Your task to perform on an android device: turn notification dots on Image 0: 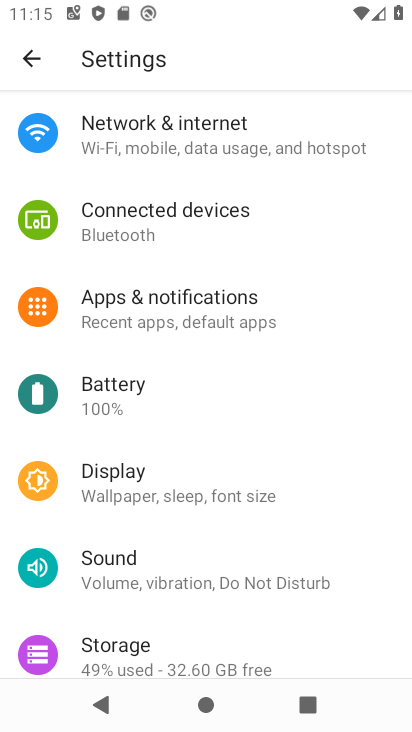
Step 0: click (164, 301)
Your task to perform on an android device: turn notification dots on Image 1: 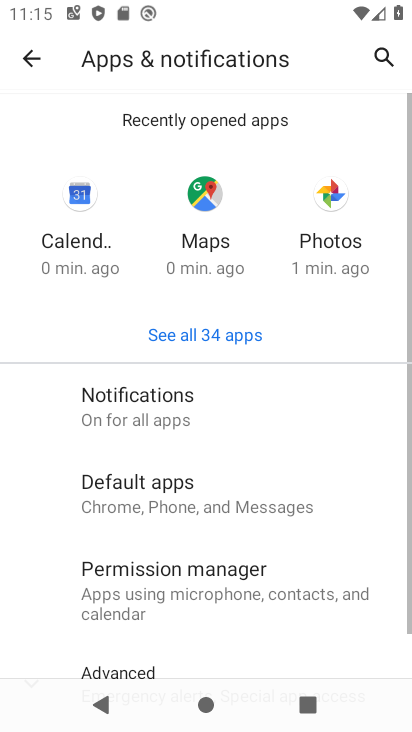
Step 1: click (164, 409)
Your task to perform on an android device: turn notification dots on Image 2: 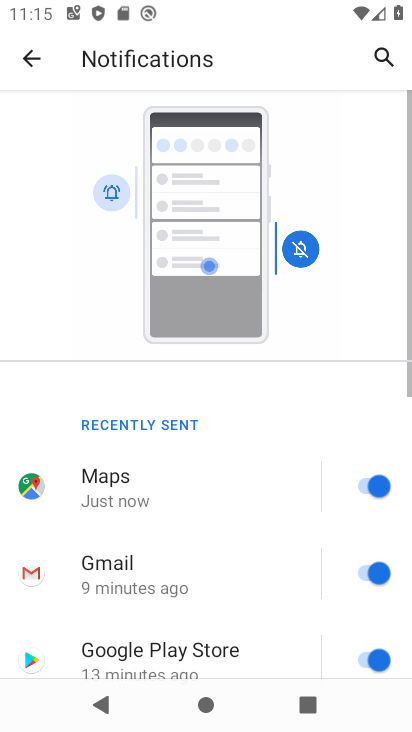
Step 2: drag from (169, 545) to (214, 66)
Your task to perform on an android device: turn notification dots on Image 3: 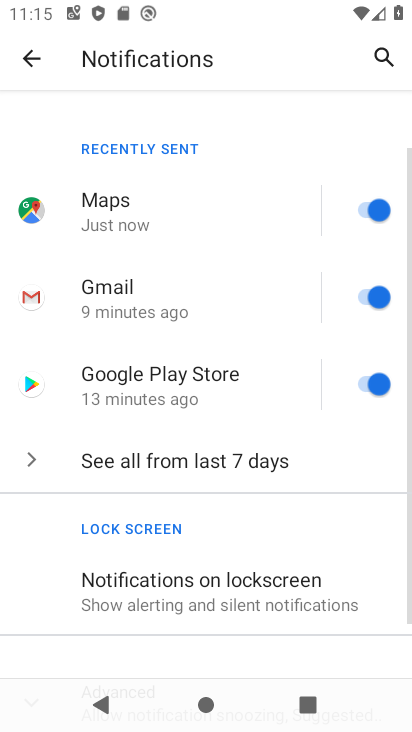
Step 3: click (119, 631)
Your task to perform on an android device: turn notification dots on Image 4: 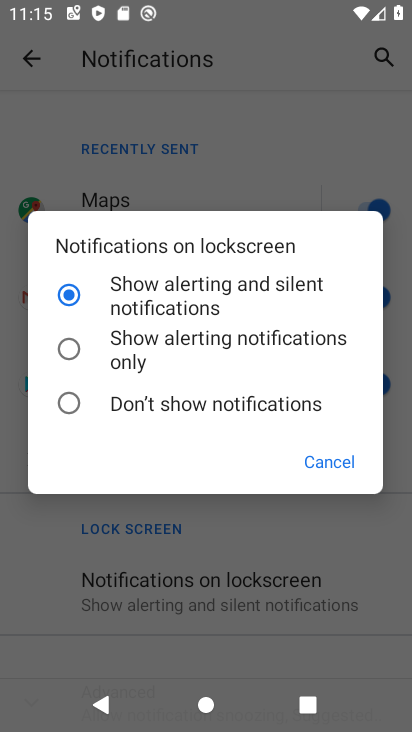
Step 4: click (317, 460)
Your task to perform on an android device: turn notification dots on Image 5: 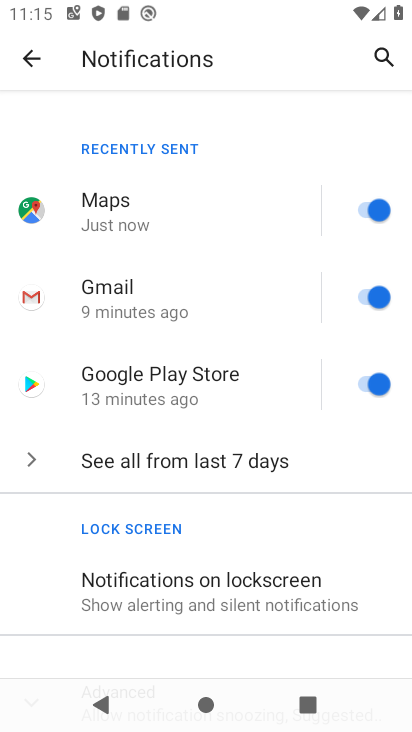
Step 5: drag from (240, 614) to (275, 177)
Your task to perform on an android device: turn notification dots on Image 6: 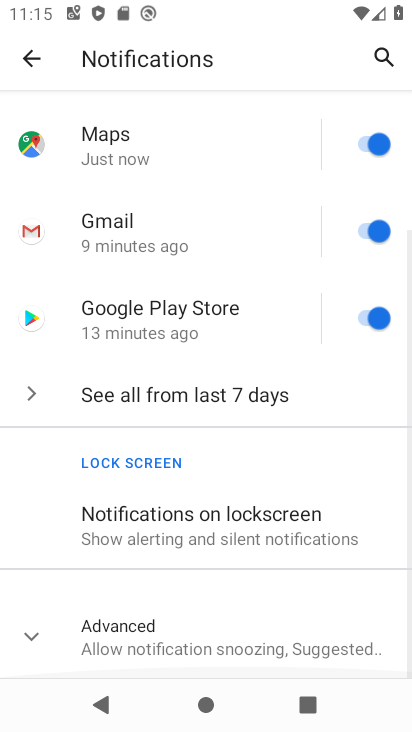
Step 6: click (150, 631)
Your task to perform on an android device: turn notification dots on Image 7: 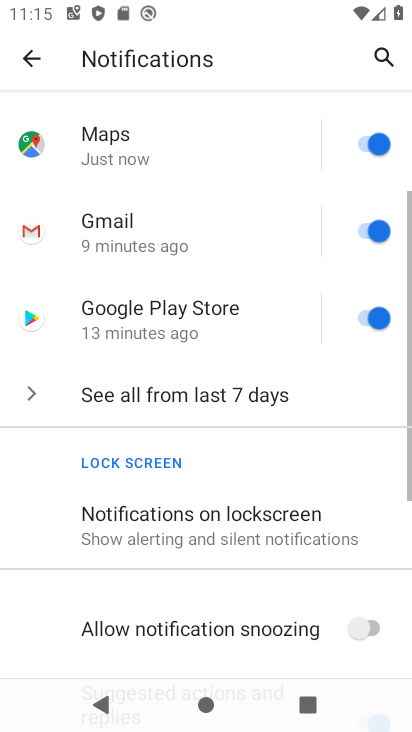
Step 7: task complete